Your task to perform on an android device: Go to Google Image 0: 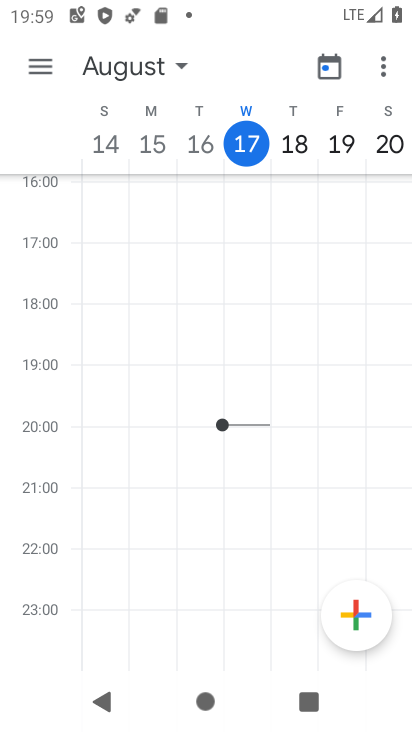
Step 0: press home button
Your task to perform on an android device: Go to Google Image 1: 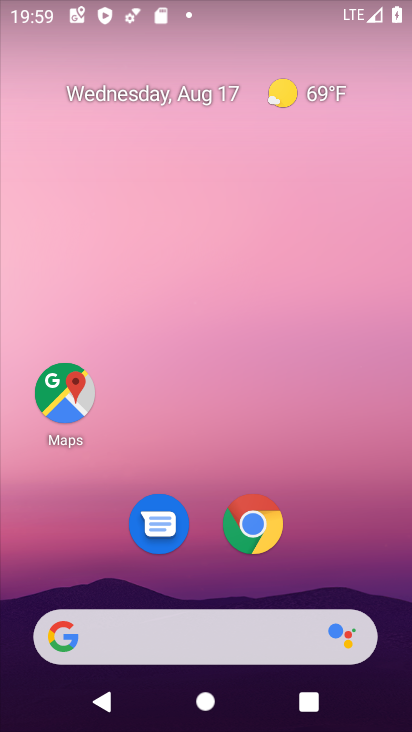
Step 1: click (270, 642)
Your task to perform on an android device: Go to Google Image 2: 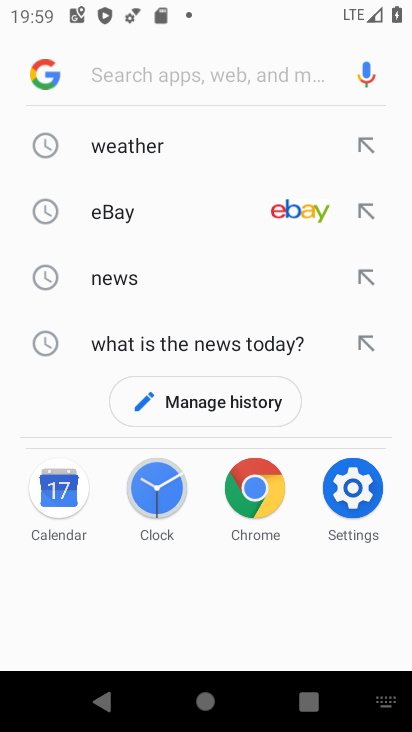
Step 2: click (42, 68)
Your task to perform on an android device: Go to Google Image 3: 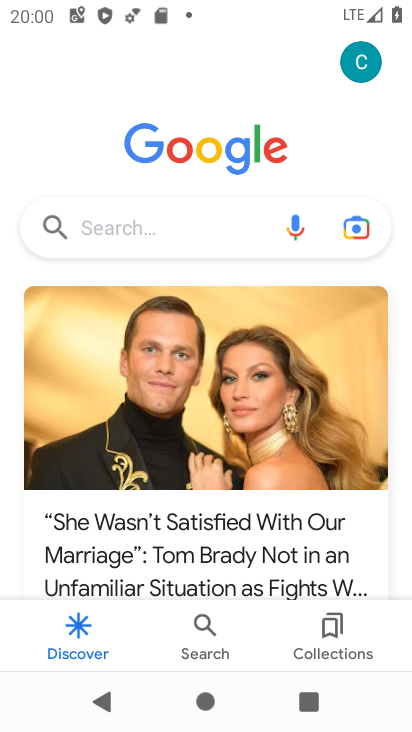
Step 3: task complete